Your task to perform on an android device: Go to Wikipedia Image 0: 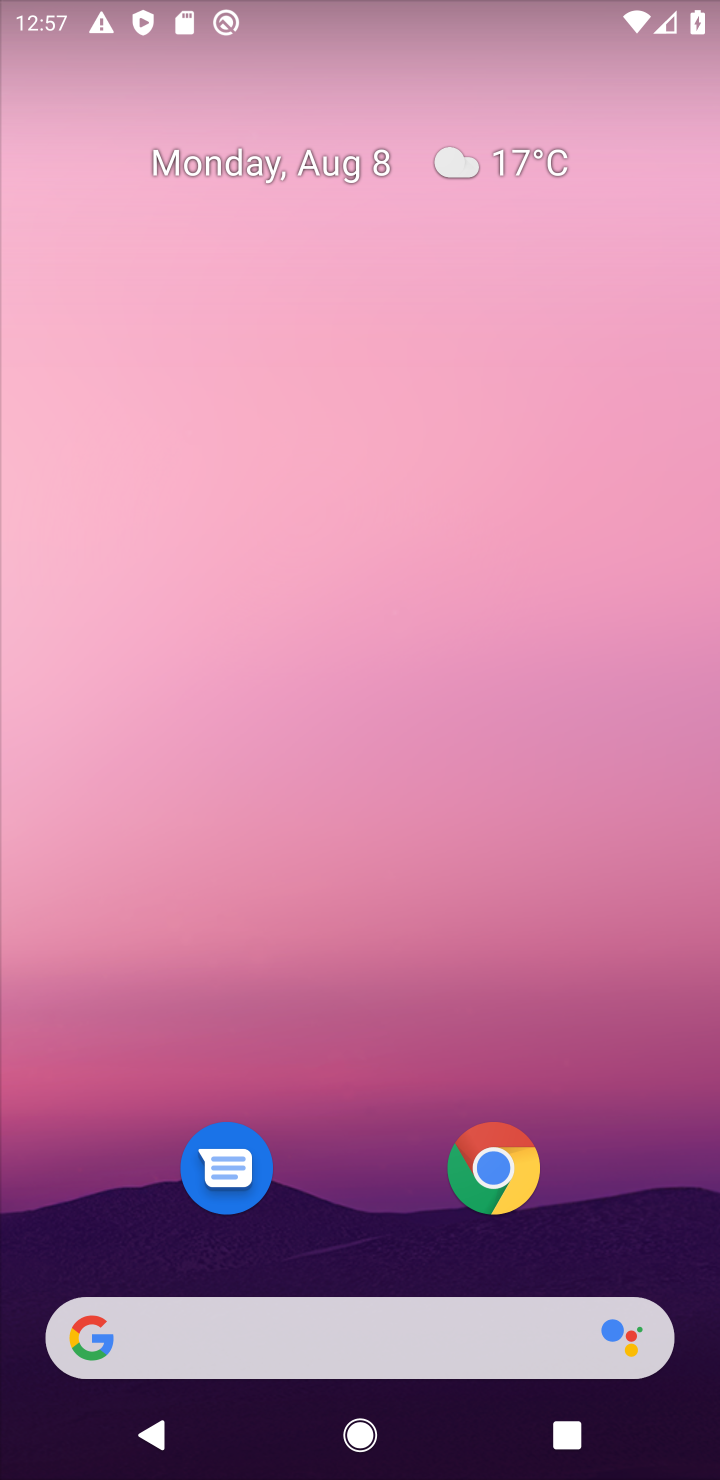
Step 0: click (214, 1337)
Your task to perform on an android device: Go to Wikipedia Image 1: 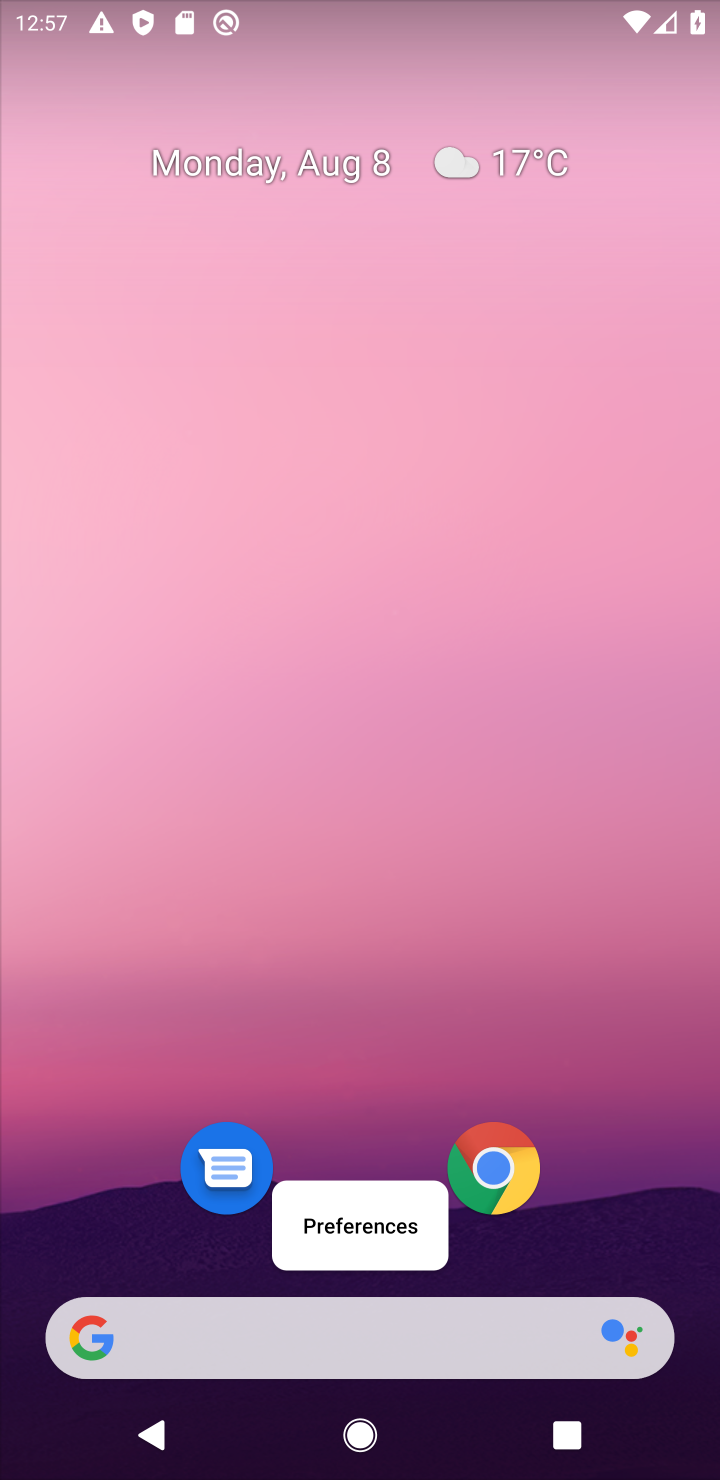
Step 1: click (247, 1359)
Your task to perform on an android device: Go to Wikipedia Image 2: 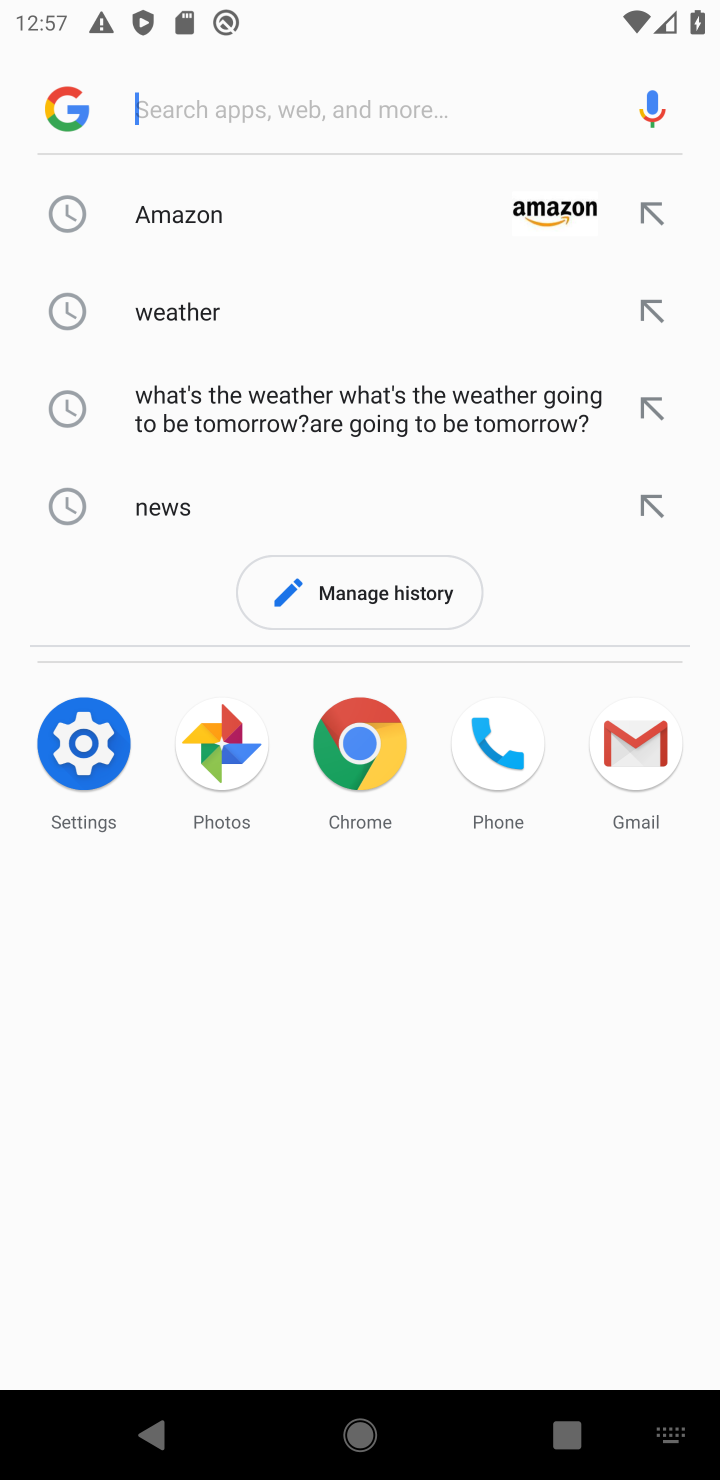
Step 2: type "Wikipedia"
Your task to perform on an android device: Go to Wikipedia Image 3: 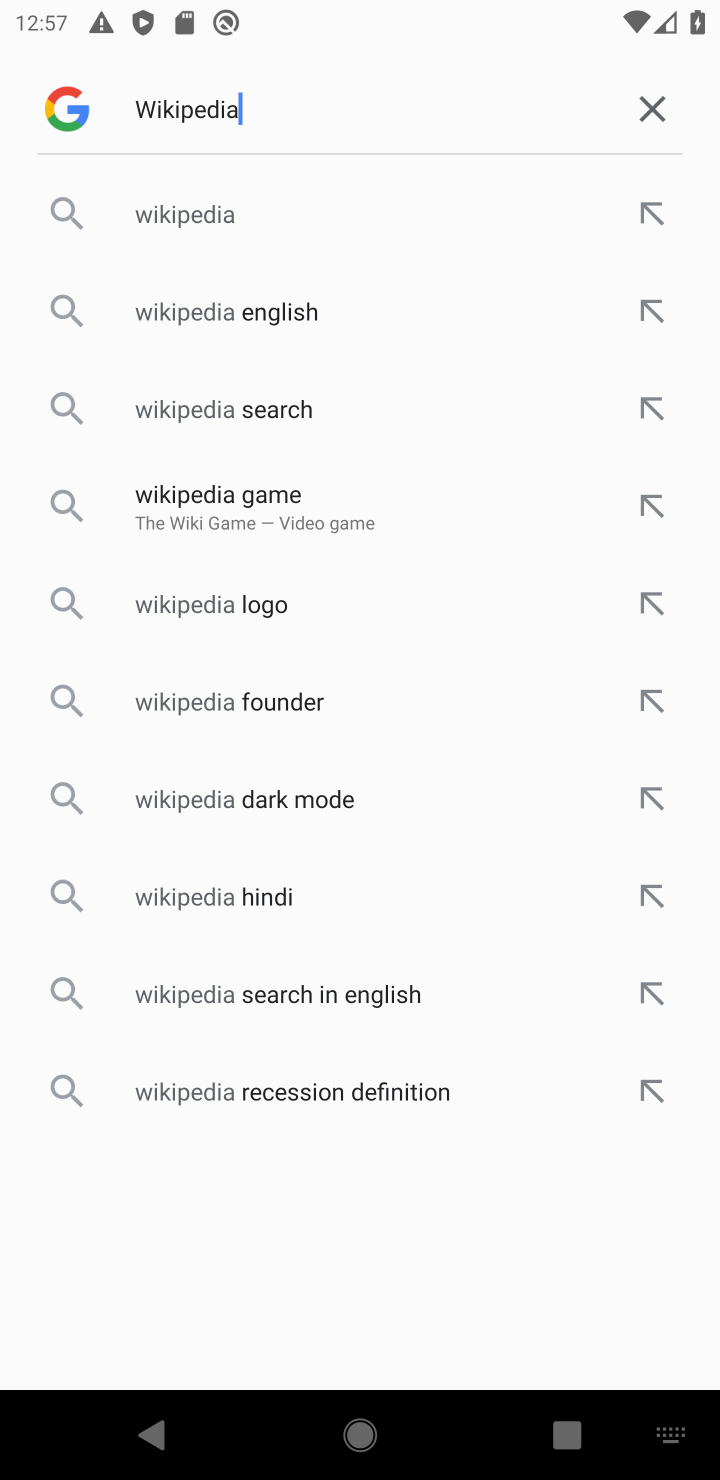
Step 3: click (194, 217)
Your task to perform on an android device: Go to Wikipedia Image 4: 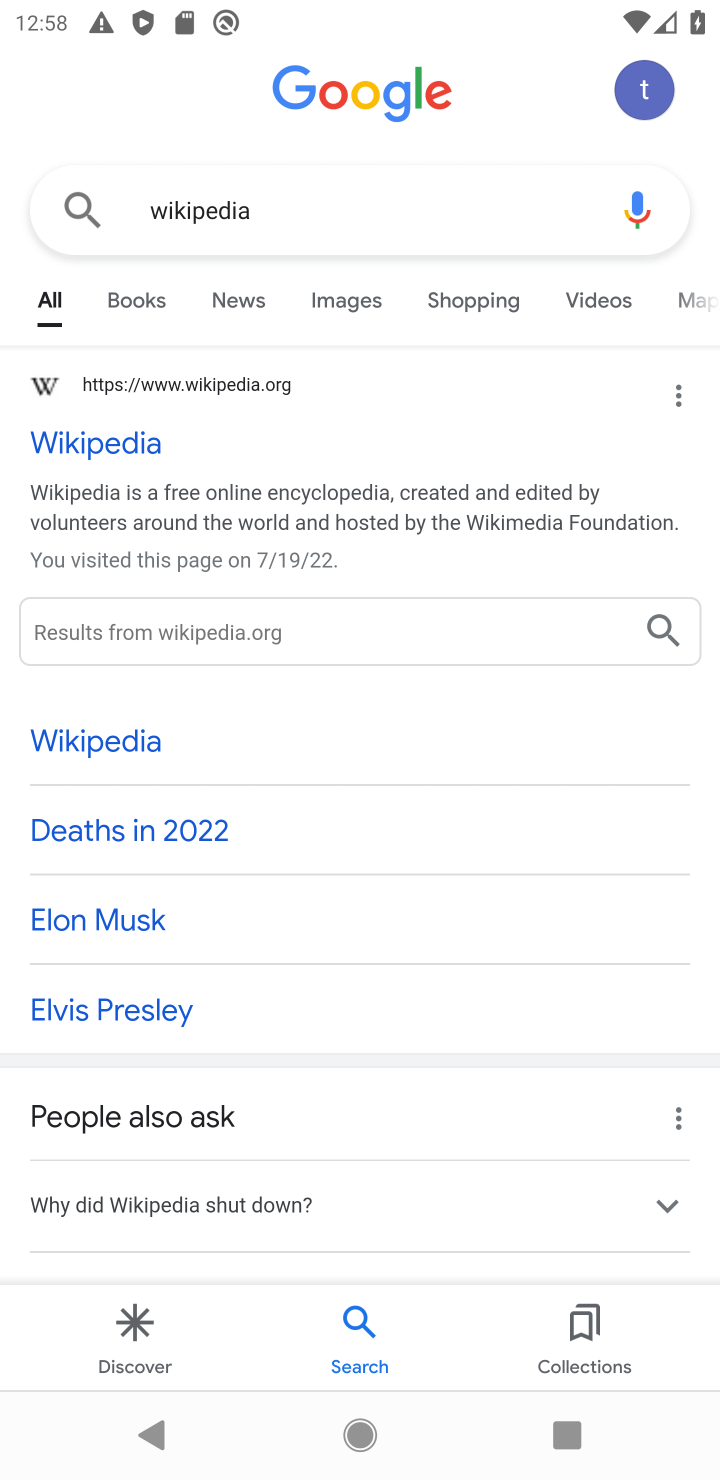
Step 4: task complete